Your task to perform on an android device: Open Youtube and go to "Your channel" Image 0: 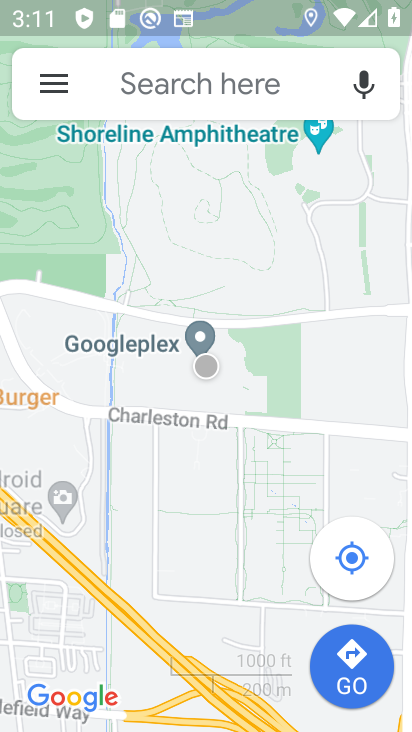
Step 0: press back button
Your task to perform on an android device: Open Youtube and go to "Your channel" Image 1: 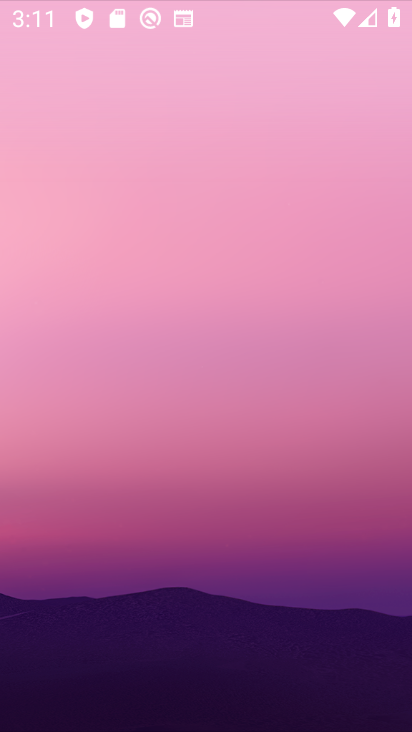
Step 1: press back button
Your task to perform on an android device: Open Youtube and go to "Your channel" Image 2: 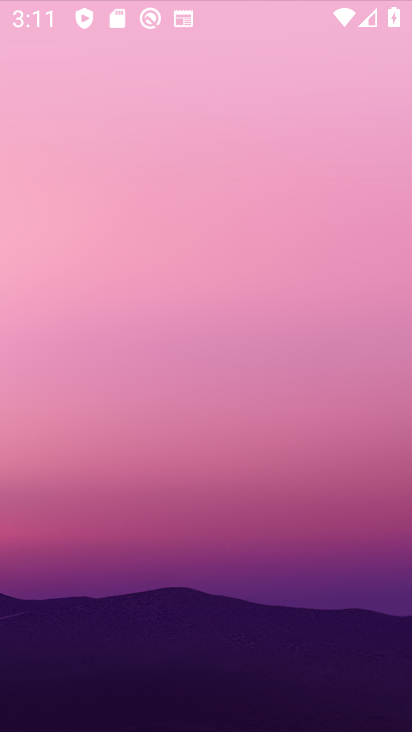
Step 2: press back button
Your task to perform on an android device: Open Youtube and go to "Your channel" Image 3: 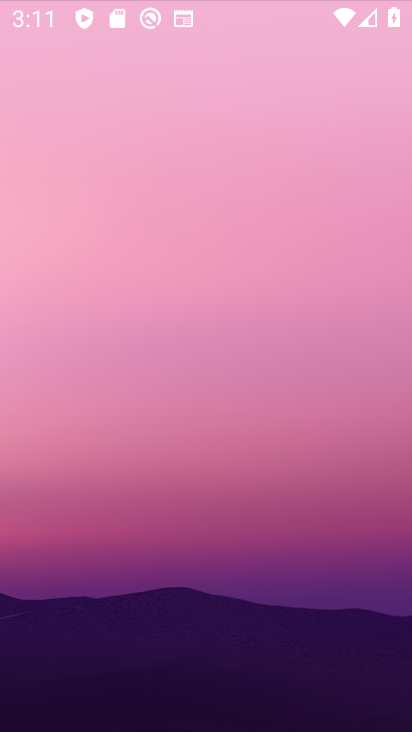
Step 3: press back button
Your task to perform on an android device: Open Youtube and go to "Your channel" Image 4: 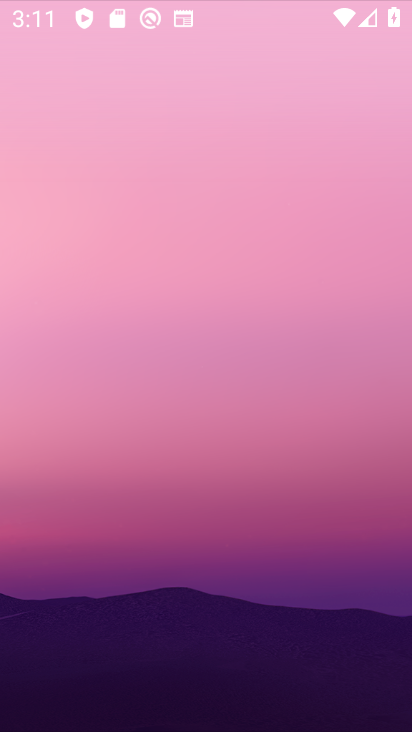
Step 4: press home button
Your task to perform on an android device: Open Youtube and go to "Your channel" Image 5: 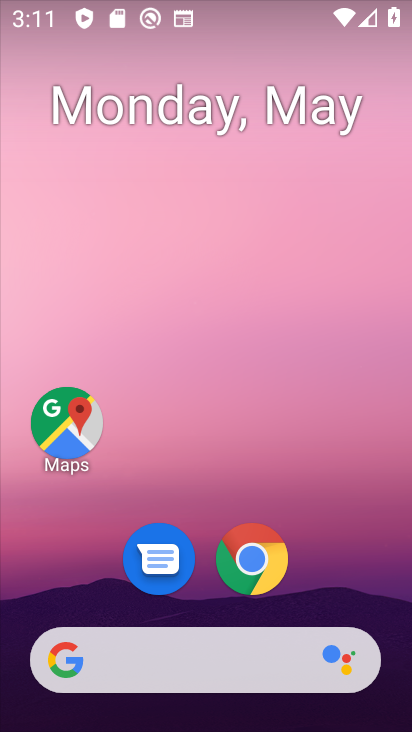
Step 5: drag from (318, 511) to (237, 5)
Your task to perform on an android device: Open Youtube and go to "Your channel" Image 6: 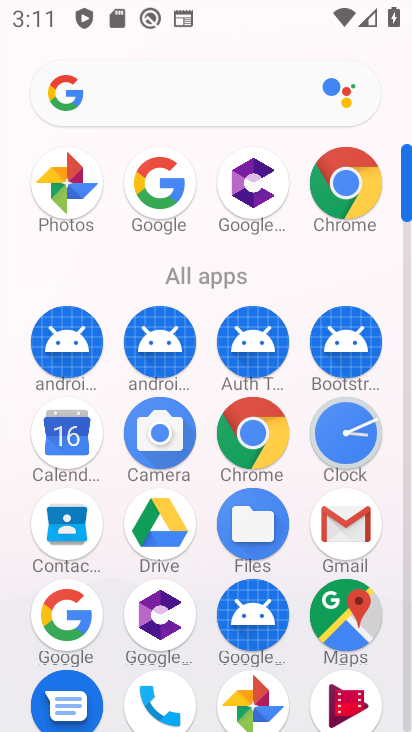
Step 6: drag from (2, 527) to (26, 141)
Your task to perform on an android device: Open Youtube and go to "Your channel" Image 7: 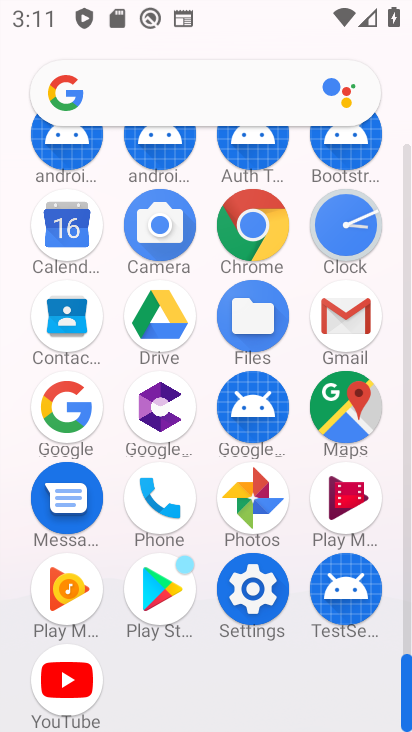
Step 7: click (74, 683)
Your task to perform on an android device: Open Youtube and go to "Your channel" Image 8: 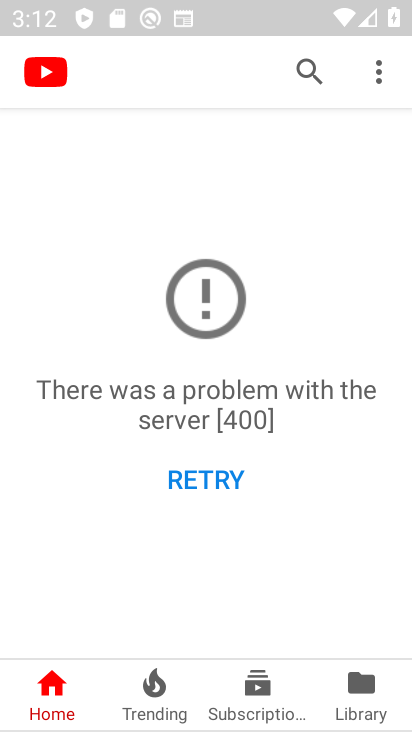
Step 8: click (352, 696)
Your task to perform on an android device: Open Youtube and go to "Your channel" Image 9: 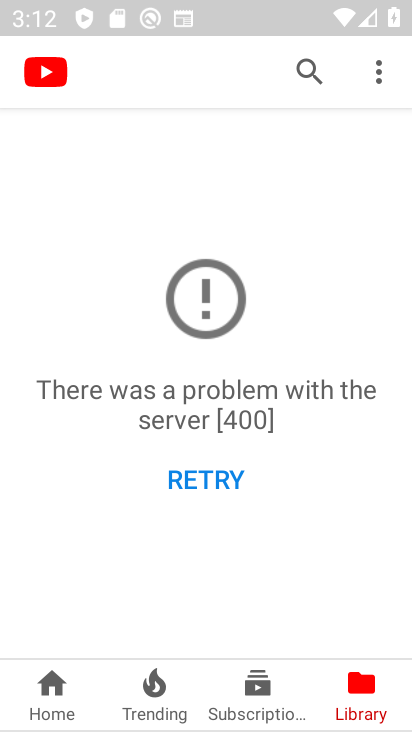
Step 9: task complete